Your task to perform on an android device: Is it going to rain today? Image 0: 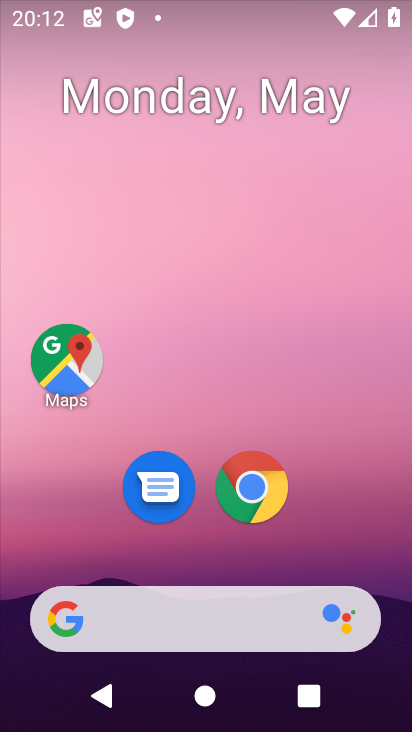
Step 0: click (260, 597)
Your task to perform on an android device: Is it going to rain today? Image 1: 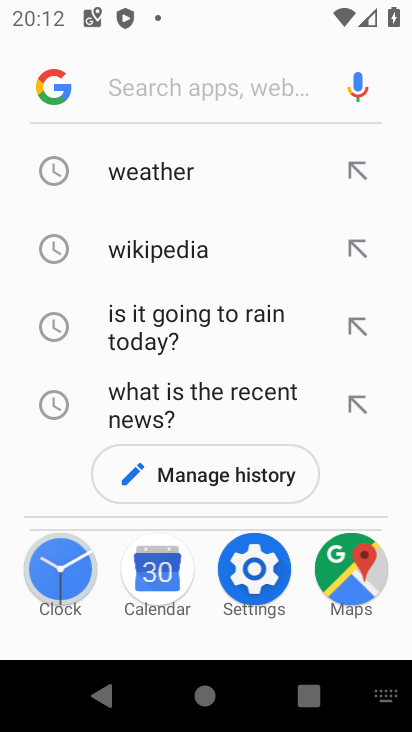
Step 1: click (193, 174)
Your task to perform on an android device: Is it going to rain today? Image 2: 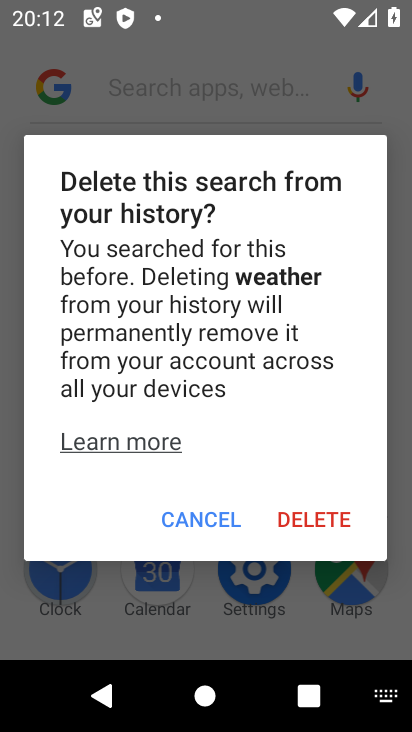
Step 2: click (218, 519)
Your task to perform on an android device: Is it going to rain today? Image 3: 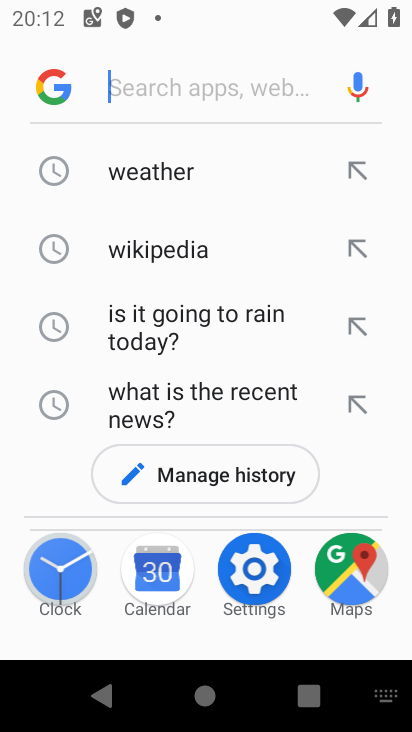
Step 3: click (171, 163)
Your task to perform on an android device: Is it going to rain today? Image 4: 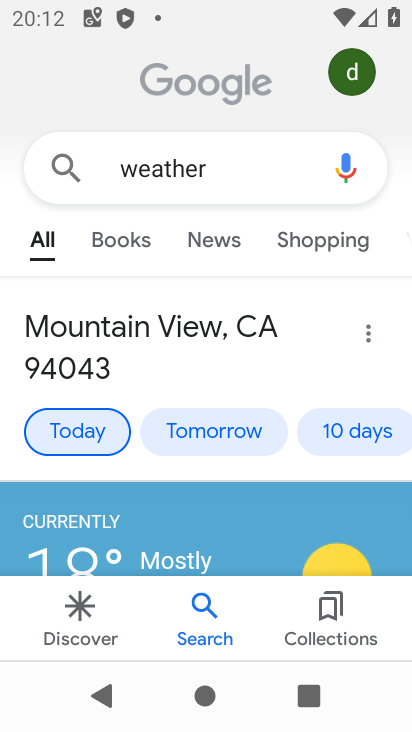
Step 4: task complete